Your task to perform on an android device: Go to privacy settings Image 0: 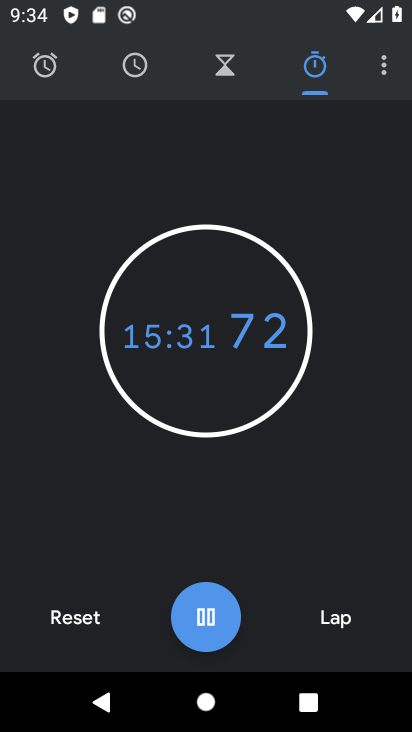
Step 0: press home button
Your task to perform on an android device: Go to privacy settings Image 1: 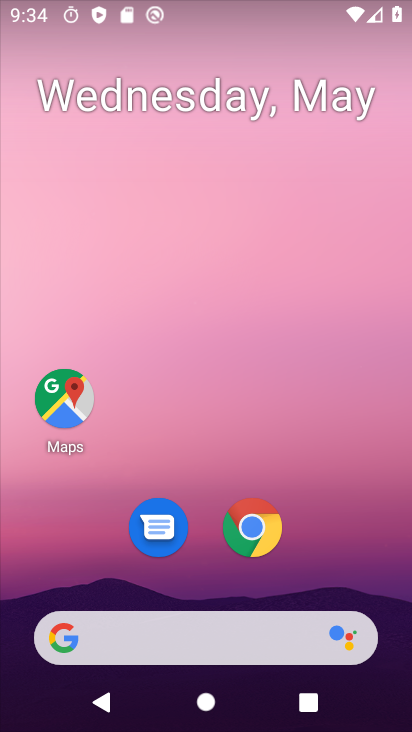
Step 1: click (299, 536)
Your task to perform on an android device: Go to privacy settings Image 2: 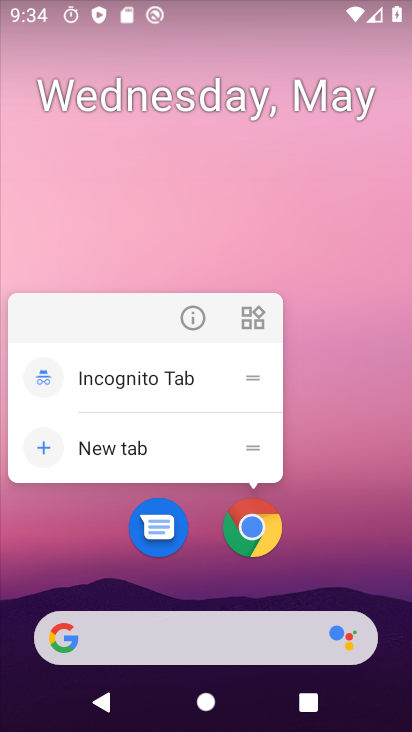
Step 2: click (297, 565)
Your task to perform on an android device: Go to privacy settings Image 3: 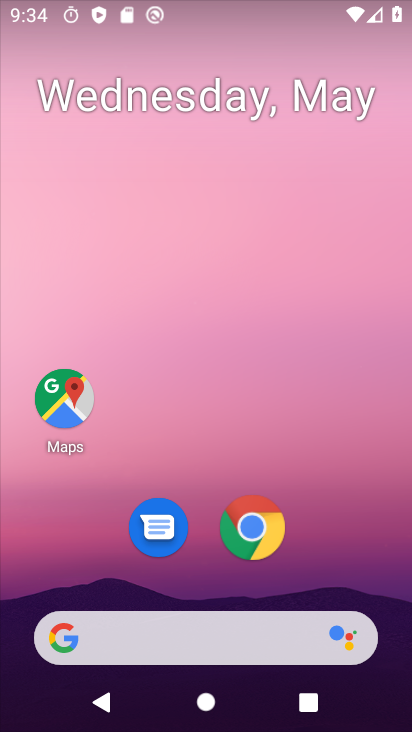
Step 3: drag from (297, 565) to (298, 127)
Your task to perform on an android device: Go to privacy settings Image 4: 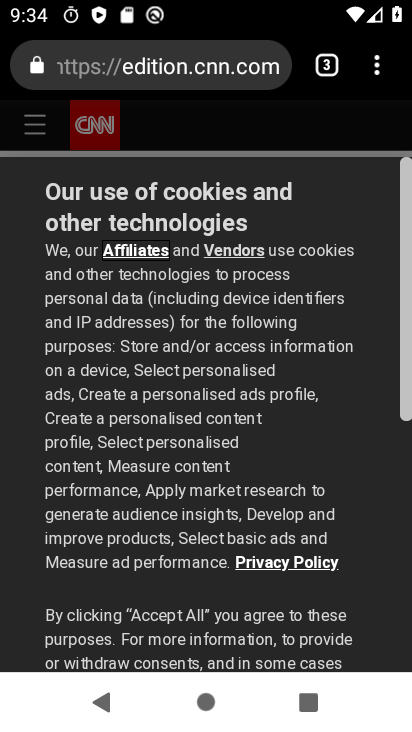
Step 4: press back button
Your task to perform on an android device: Go to privacy settings Image 5: 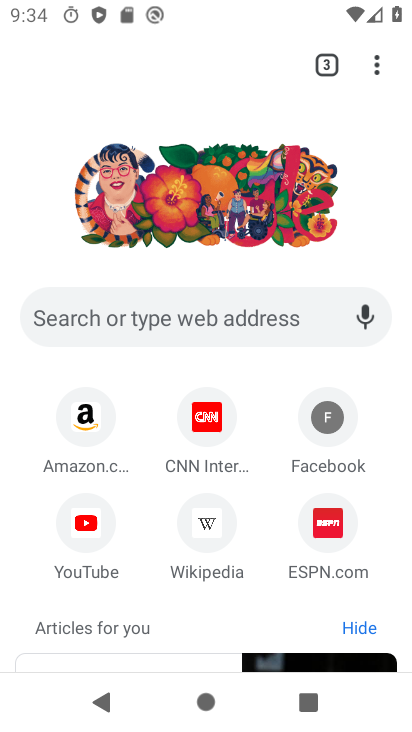
Step 5: press home button
Your task to perform on an android device: Go to privacy settings Image 6: 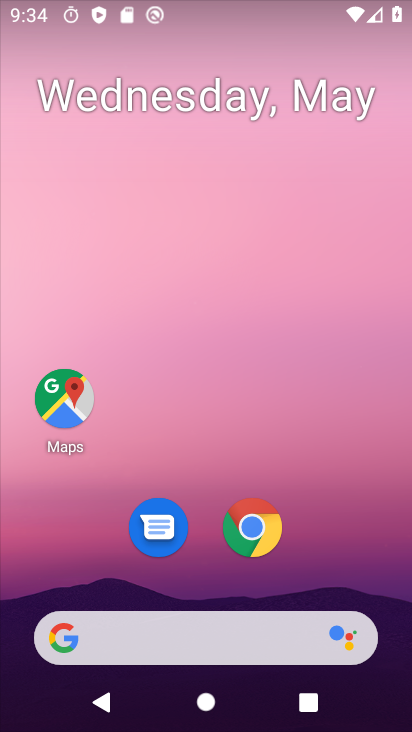
Step 6: drag from (309, 531) to (294, 107)
Your task to perform on an android device: Go to privacy settings Image 7: 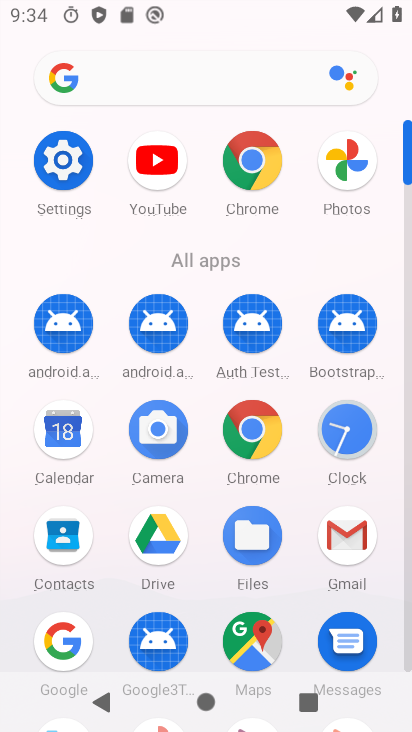
Step 7: click (67, 160)
Your task to perform on an android device: Go to privacy settings Image 8: 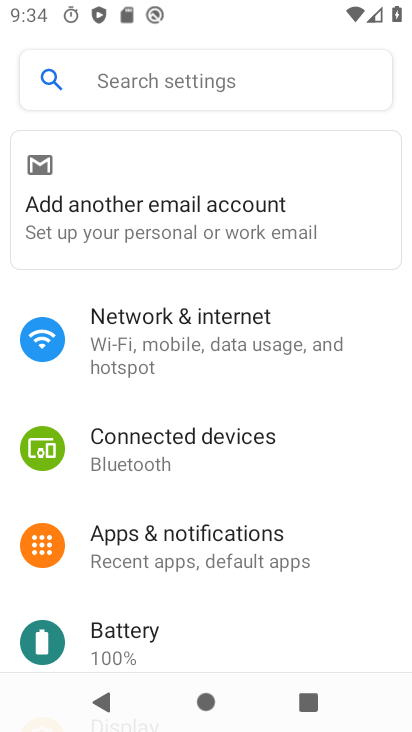
Step 8: drag from (266, 628) to (220, 86)
Your task to perform on an android device: Go to privacy settings Image 9: 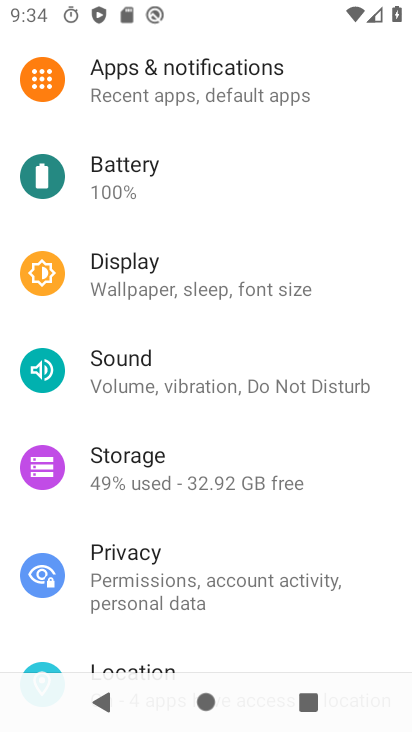
Step 9: click (151, 566)
Your task to perform on an android device: Go to privacy settings Image 10: 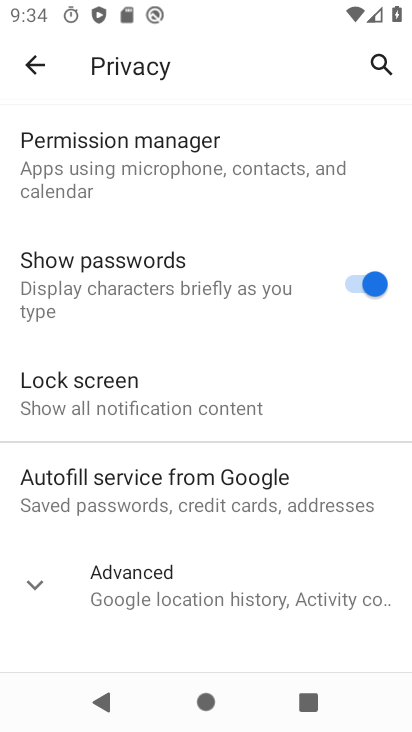
Step 10: task complete